Your task to perform on an android device: Do I have any events tomorrow? Image 0: 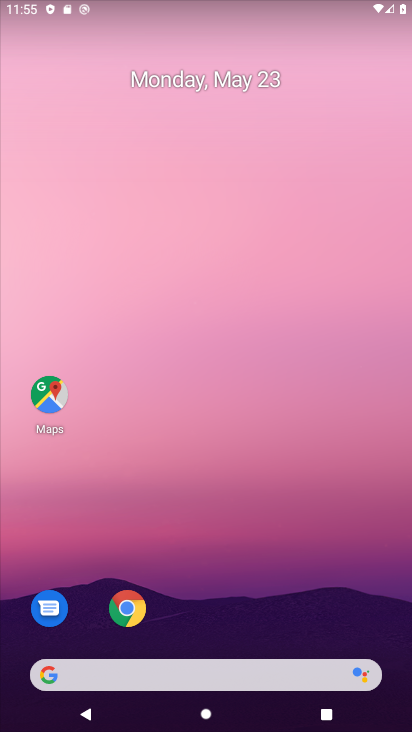
Step 0: drag from (256, 699) to (179, 127)
Your task to perform on an android device: Do I have any events tomorrow? Image 1: 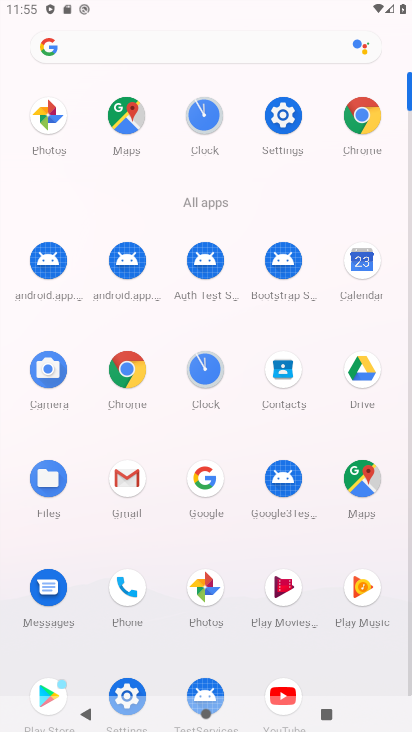
Step 1: click (353, 259)
Your task to perform on an android device: Do I have any events tomorrow? Image 2: 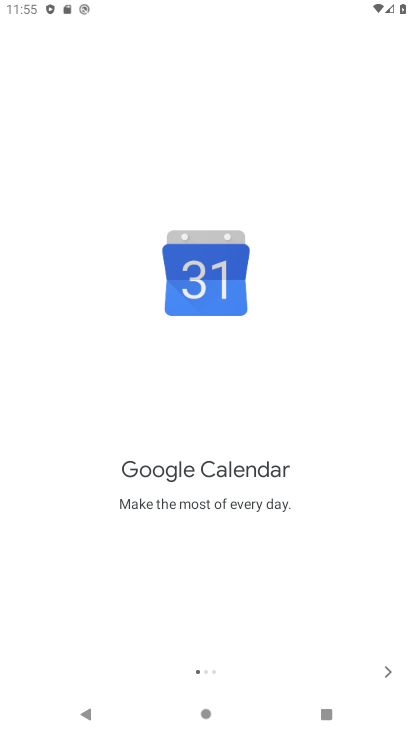
Step 2: click (378, 662)
Your task to perform on an android device: Do I have any events tomorrow? Image 3: 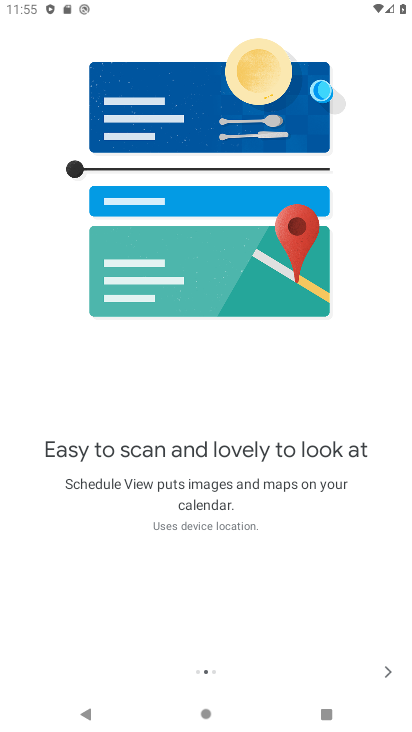
Step 3: click (382, 675)
Your task to perform on an android device: Do I have any events tomorrow? Image 4: 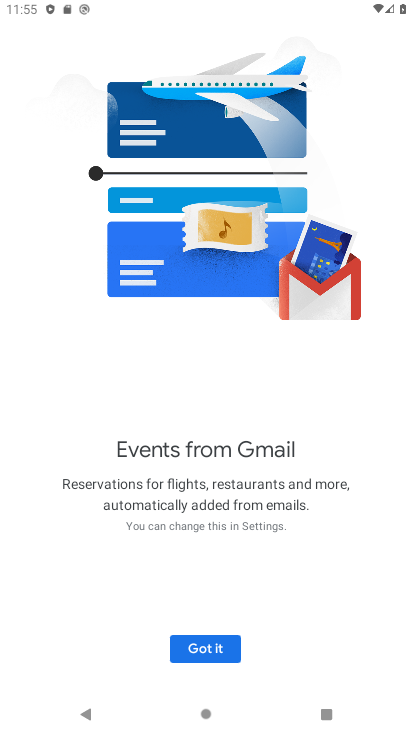
Step 4: click (190, 645)
Your task to perform on an android device: Do I have any events tomorrow? Image 5: 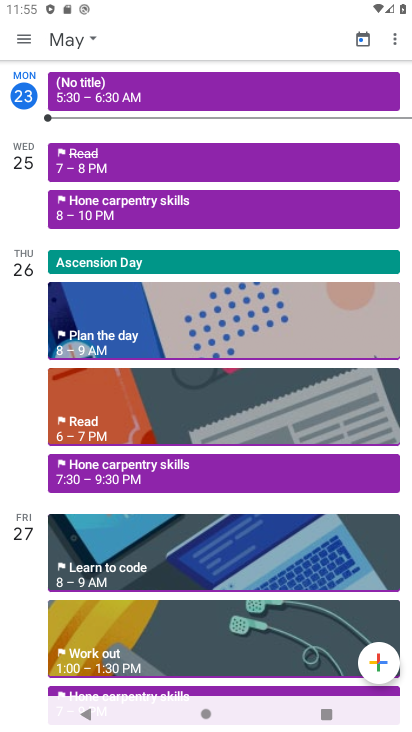
Step 5: click (28, 37)
Your task to perform on an android device: Do I have any events tomorrow? Image 6: 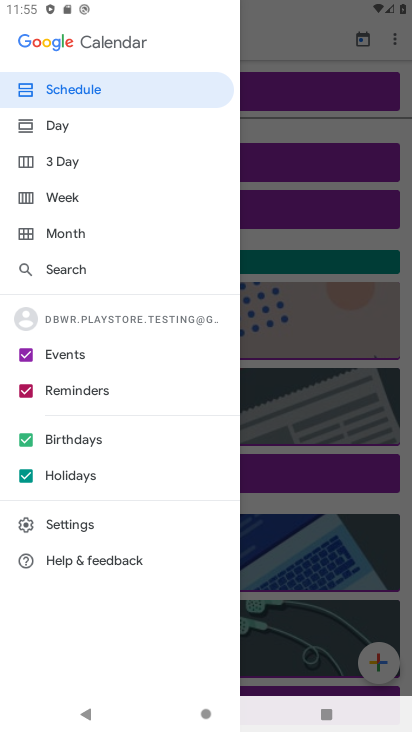
Step 6: click (76, 159)
Your task to perform on an android device: Do I have any events tomorrow? Image 7: 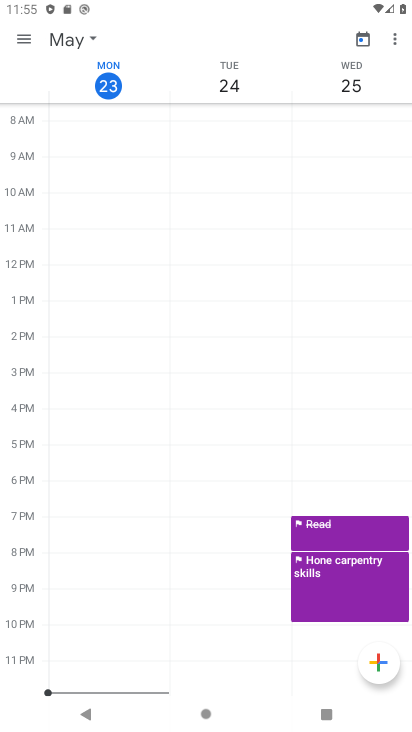
Step 7: task complete